Your task to perform on an android device: Open display settings Image 0: 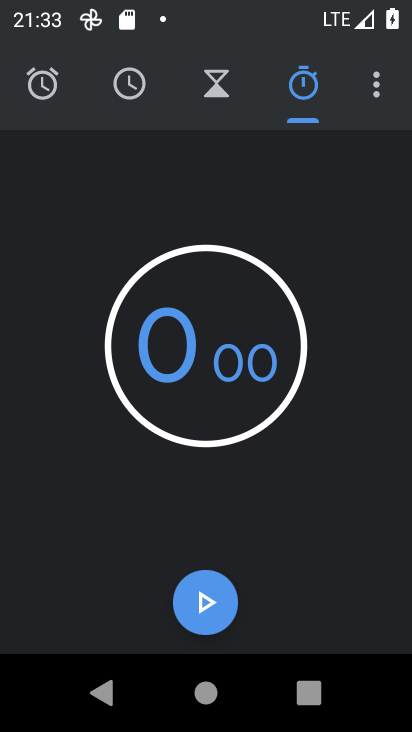
Step 0: click (382, 78)
Your task to perform on an android device: Open display settings Image 1: 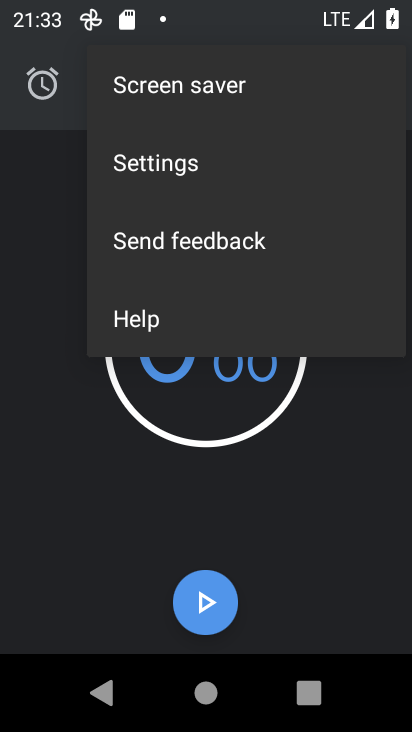
Step 1: click (212, 163)
Your task to perform on an android device: Open display settings Image 2: 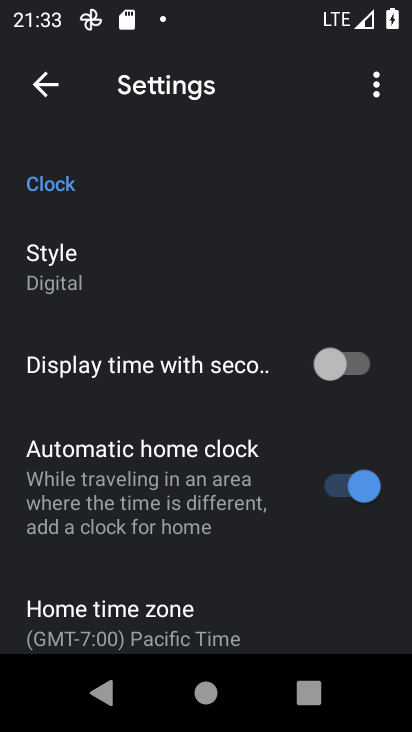
Step 2: click (52, 94)
Your task to perform on an android device: Open display settings Image 3: 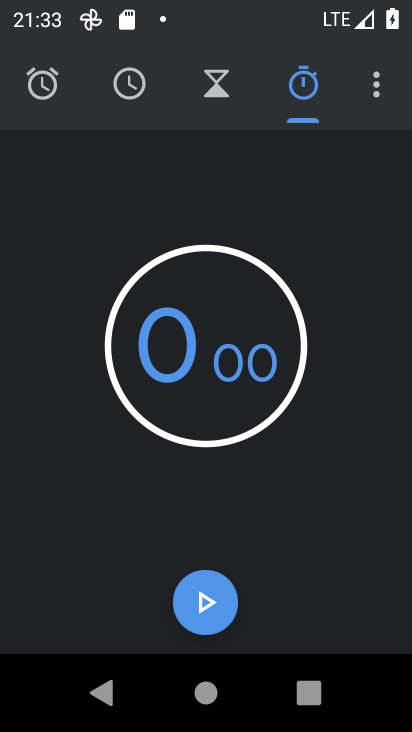
Step 3: press home button
Your task to perform on an android device: Open display settings Image 4: 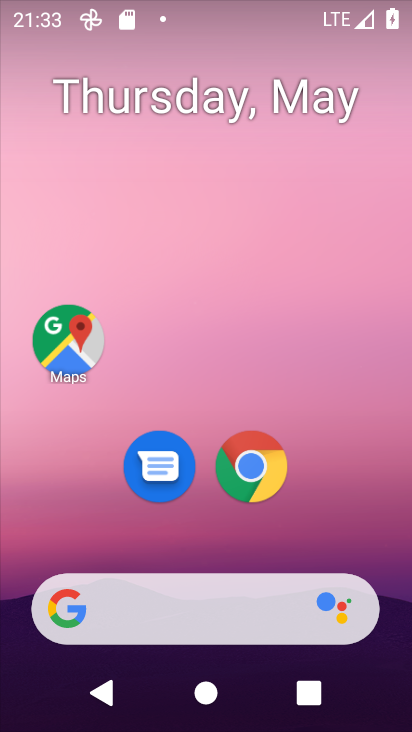
Step 4: drag from (364, 486) to (350, 47)
Your task to perform on an android device: Open display settings Image 5: 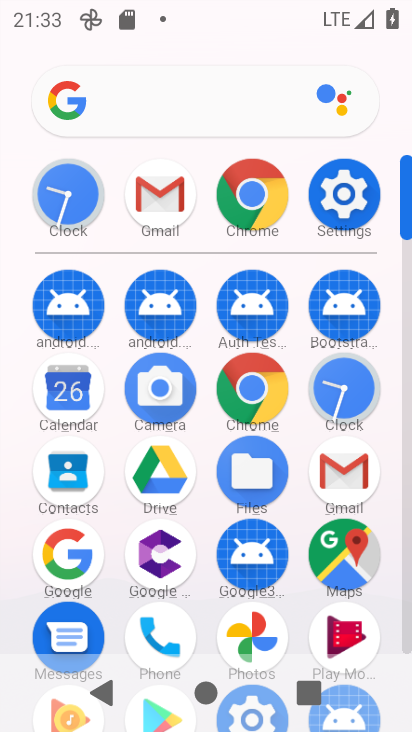
Step 5: click (351, 187)
Your task to perform on an android device: Open display settings Image 6: 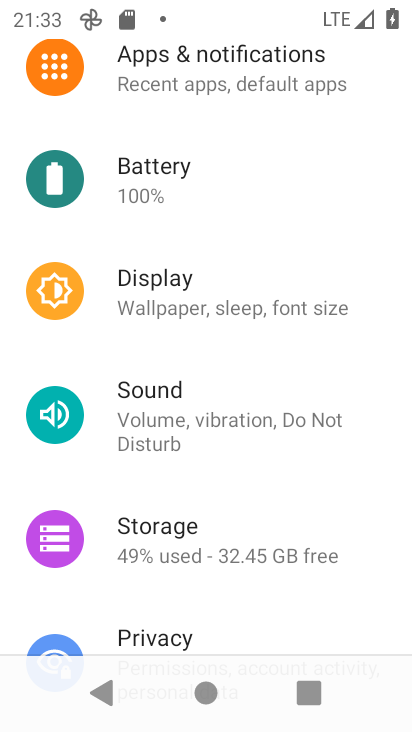
Step 6: click (210, 308)
Your task to perform on an android device: Open display settings Image 7: 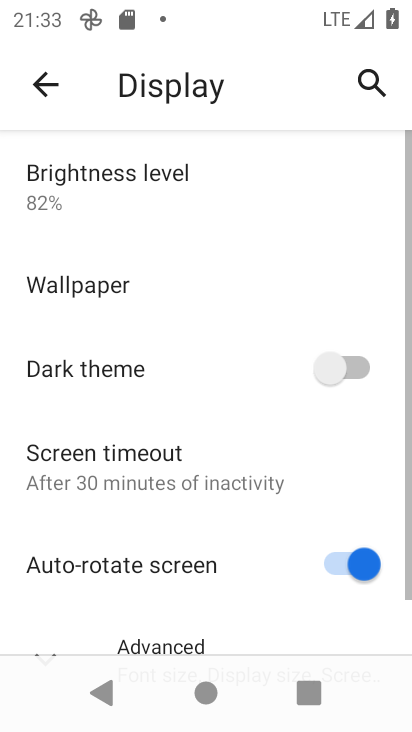
Step 7: task complete